Your task to perform on an android device: turn on improve location accuracy Image 0: 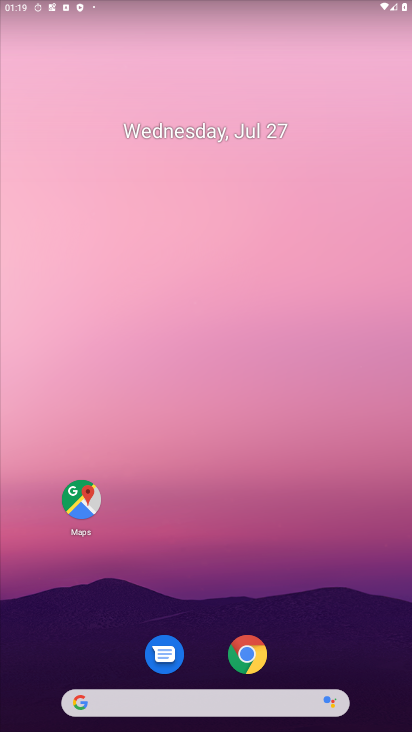
Step 0: drag from (322, 675) to (373, 14)
Your task to perform on an android device: turn on improve location accuracy Image 1: 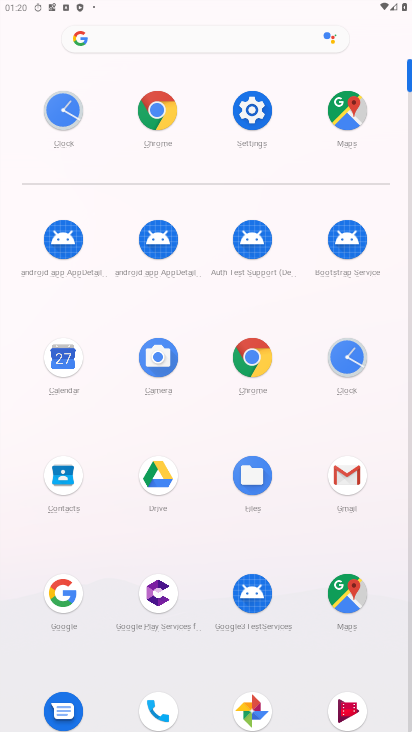
Step 1: click (258, 113)
Your task to perform on an android device: turn on improve location accuracy Image 2: 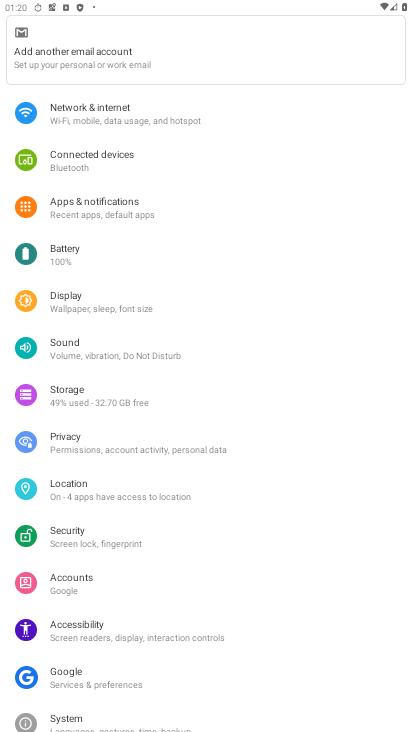
Step 2: click (97, 475)
Your task to perform on an android device: turn on improve location accuracy Image 3: 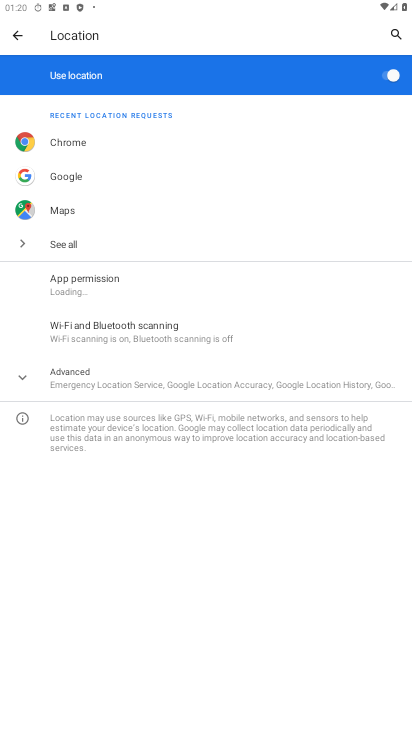
Step 3: click (237, 370)
Your task to perform on an android device: turn on improve location accuracy Image 4: 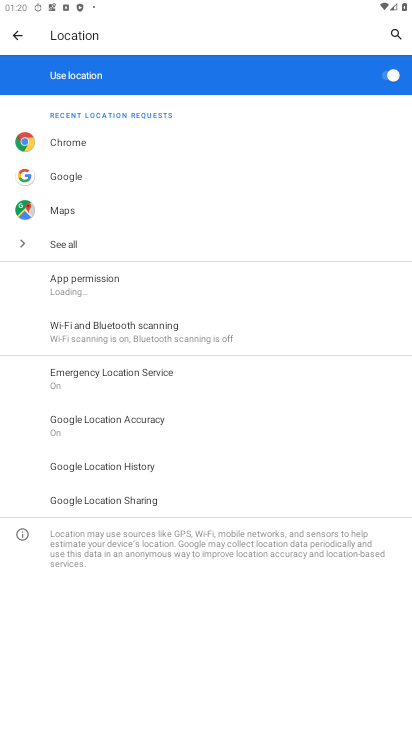
Step 4: click (139, 421)
Your task to perform on an android device: turn on improve location accuracy Image 5: 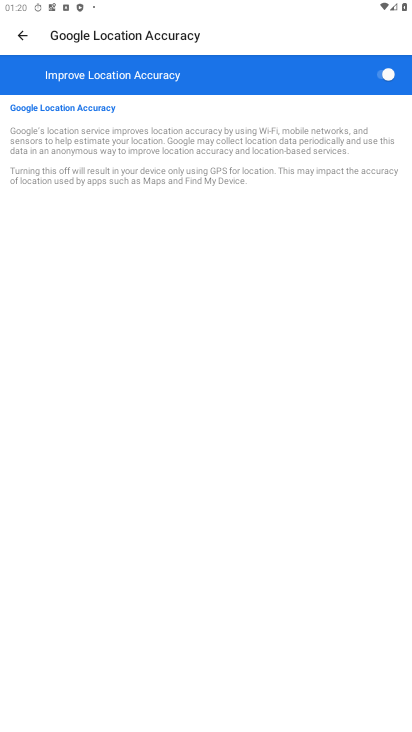
Step 5: task complete